Your task to perform on an android device: open a bookmark in the chrome app Image 0: 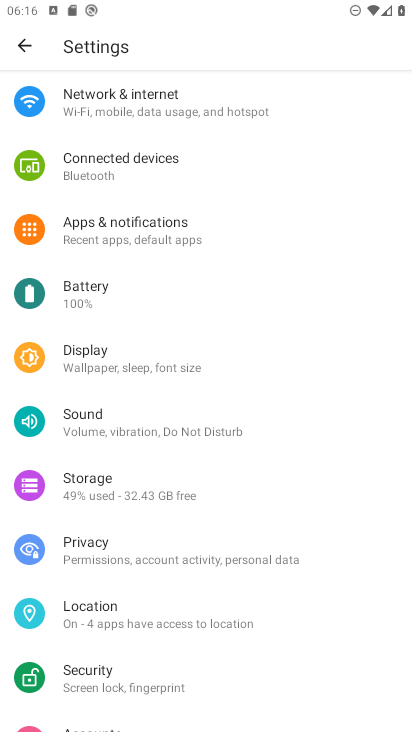
Step 0: press home button
Your task to perform on an android device: open a bookmark in the chrome app Image 1: 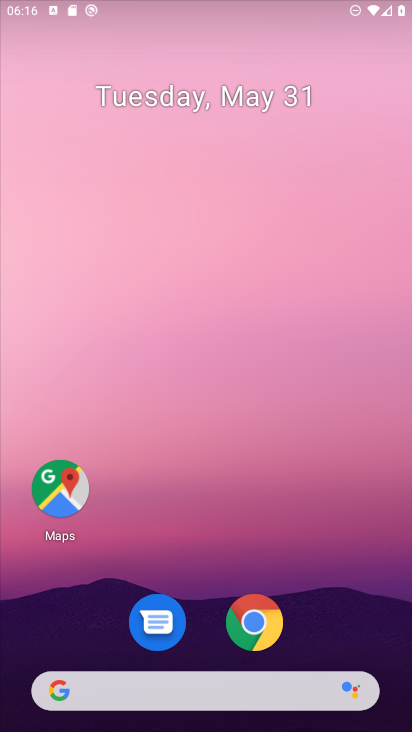
Step 1: drag from (246, 668) to (235, 37)
Your task to perform on an android device: open a bookmark in the chrome app Image 2: 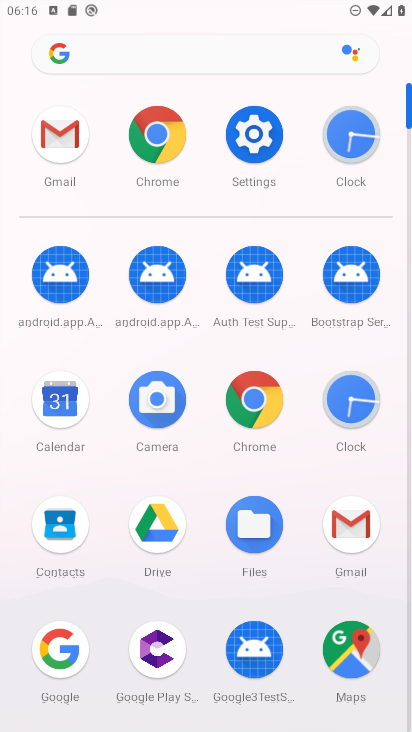
Step 2: click (246, 401)
Your task to perform on an android device: open a bookmark in the chrome app Image 3: 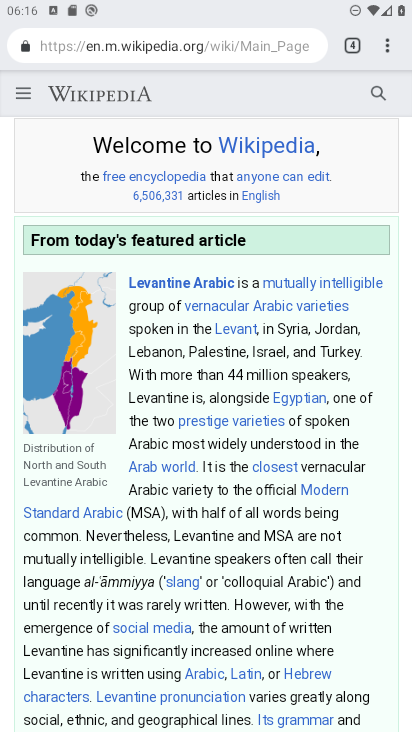
Step 3: task complete